Your task to perform on an android device: Open Google Maps Image 0: 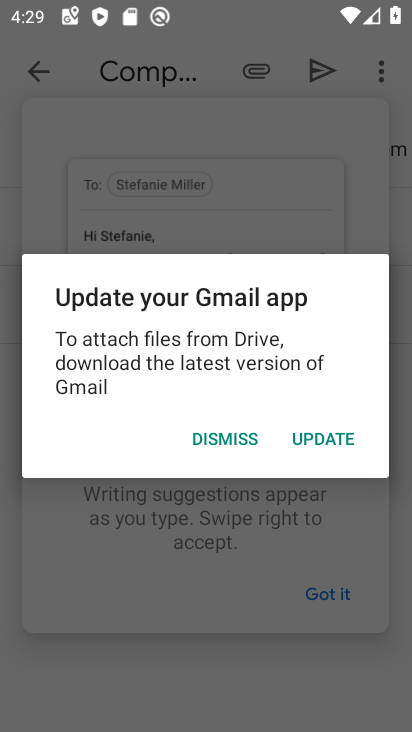
Step 0: press home button
Your task to perform on an android device: Open Google Maps Image 1: 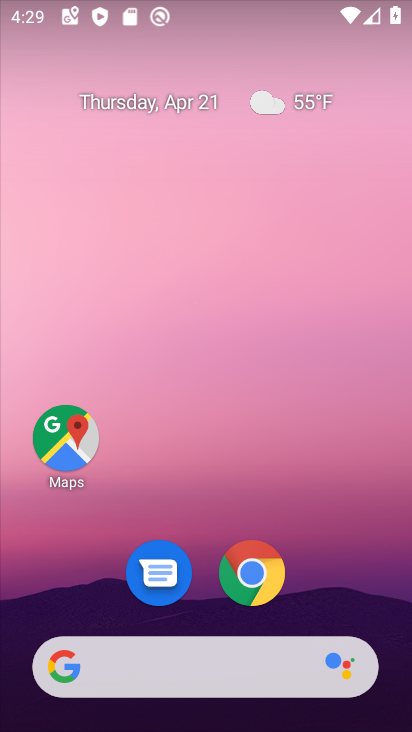
Step 1: click (63, 446)
Your task to perform on an android device: Open Google Maps Image 2: 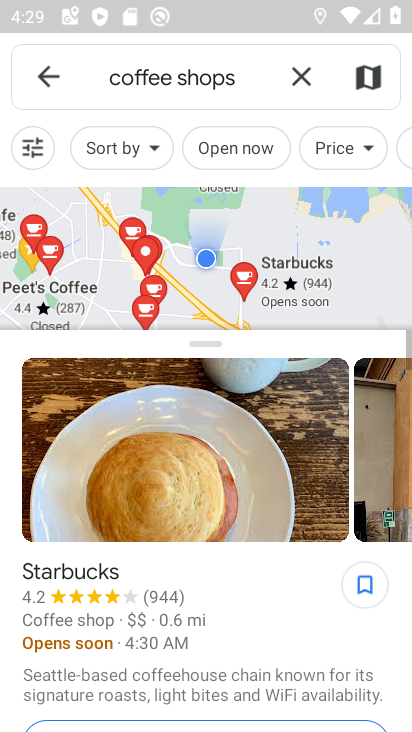
Step 2: task complete